Your task to perform on an android device: toggle priority inbox in the gmail app Image 0: 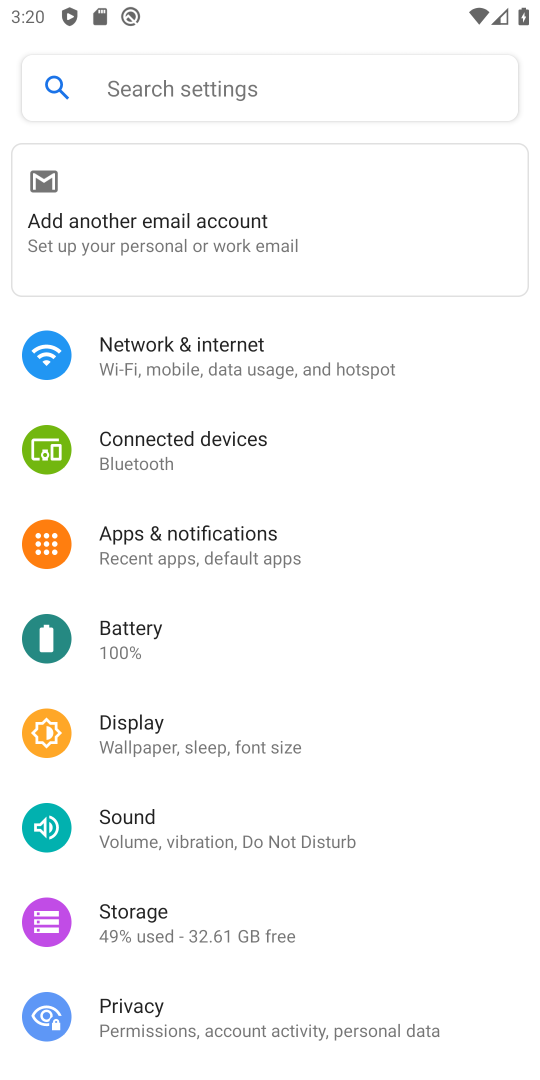
Step 0: press home button
Your task to perform on an android device: toggle priority inbox in the gmail app Image 1: 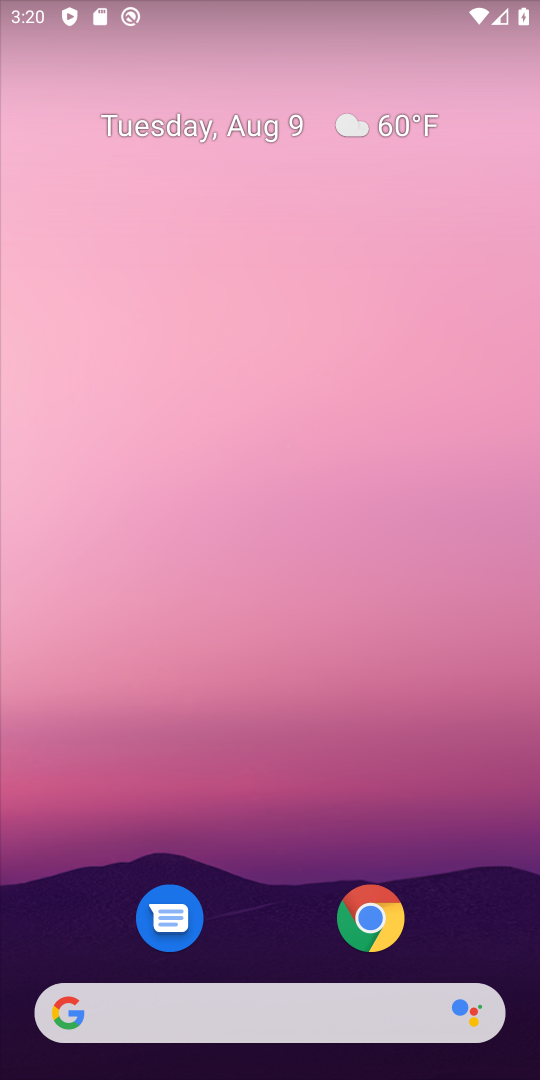
Step 1: drag from (245, 842) to (191, 173)
Your task to perform on an android device: toggle priority inbox in the gmail app Image 2: 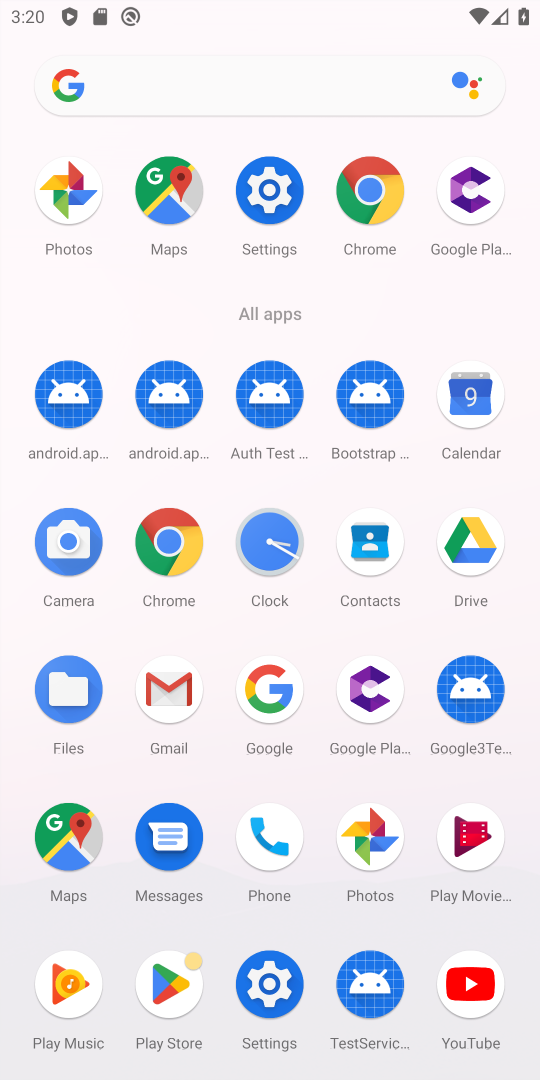
Step 2: click (173, 689)
Your task to perform on an android device: toggle priority inbox in the gmail app Image 3: 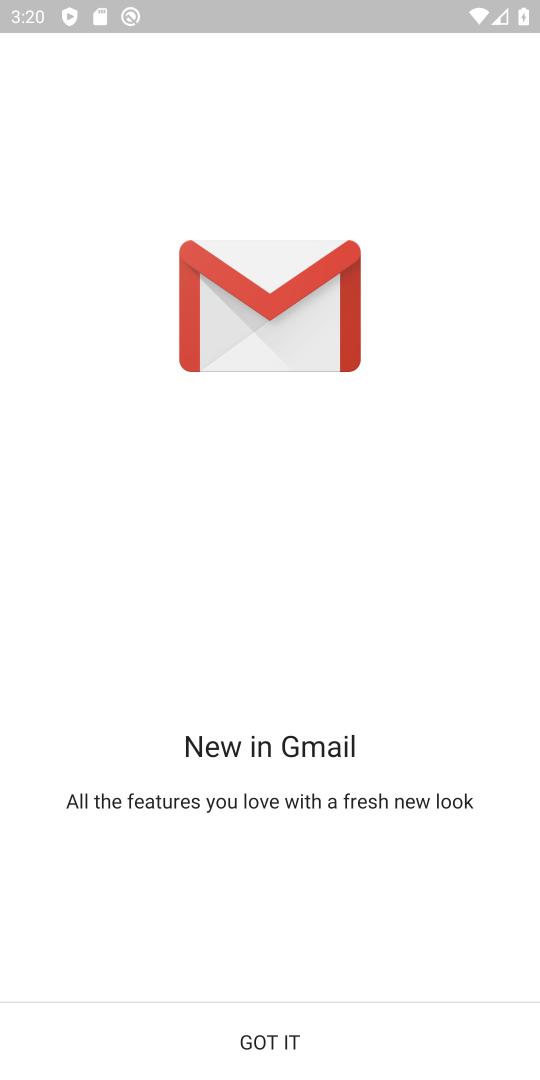
Step 3: click (296, 1034)
Your task to perform on an android device: toggle priority inbox in the gmail app Image 4: 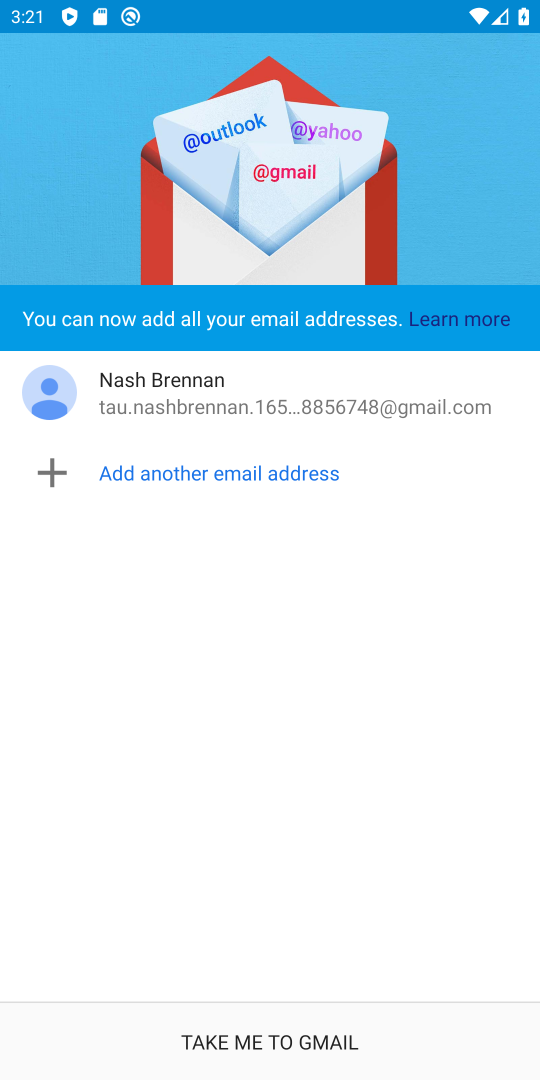
Step 4: click (296, 1034)
Your task to perform on an android device: toggle priority inbox in the gmail app Image 5: 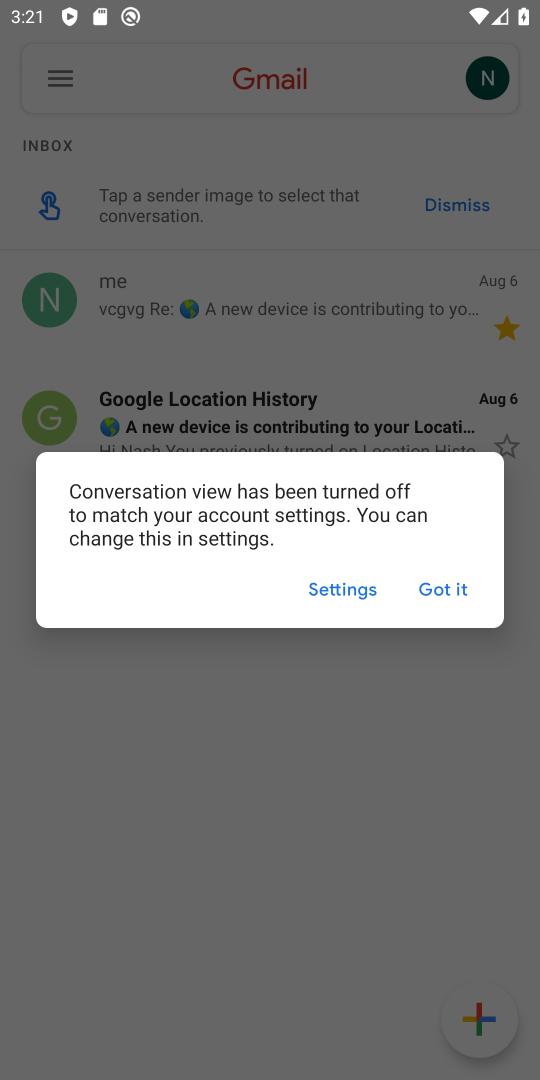
Step 5: click (462, 607)
Your task to perform on an android device: toggle priority inbox in the gmail app Image 6: 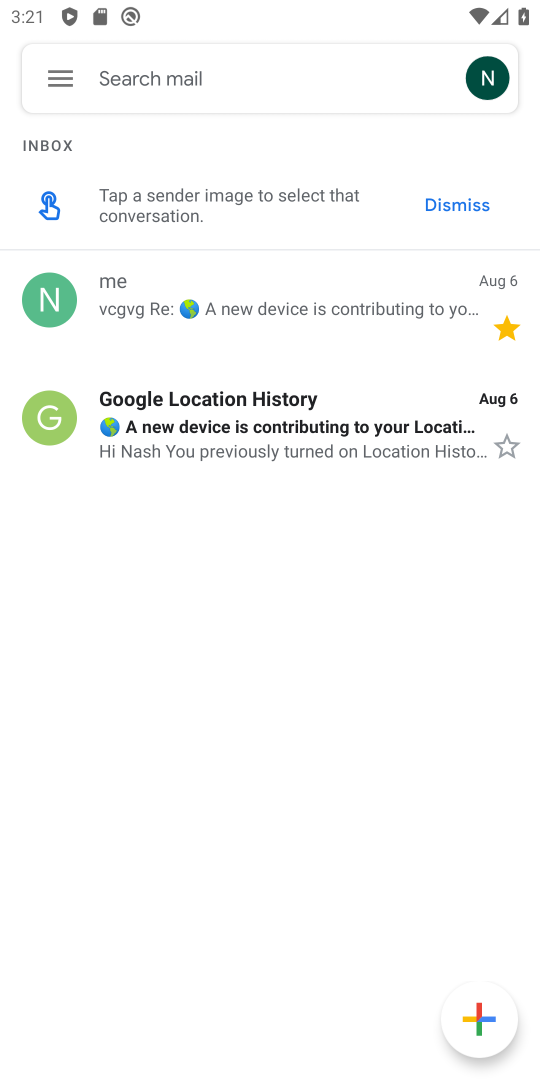
Step 6: click (61, 78)
Your task to perform on an android device: toggle priority inbox in the gmail app Image 7: 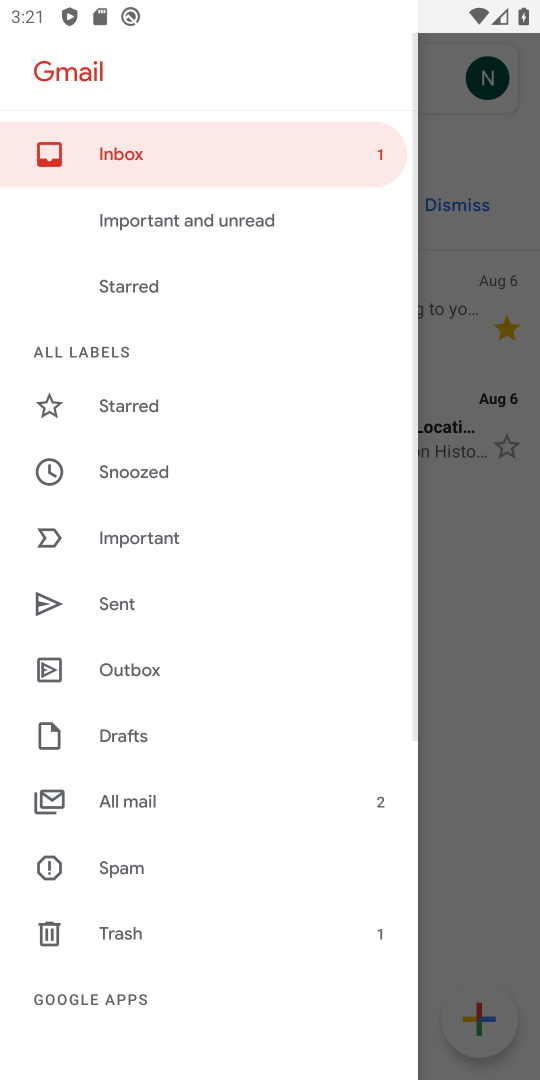
Step 7: drag from (199, 918) to (163, 191)
Your task to perform on an android device: toggle priority inbox in the gmail app Image 8: 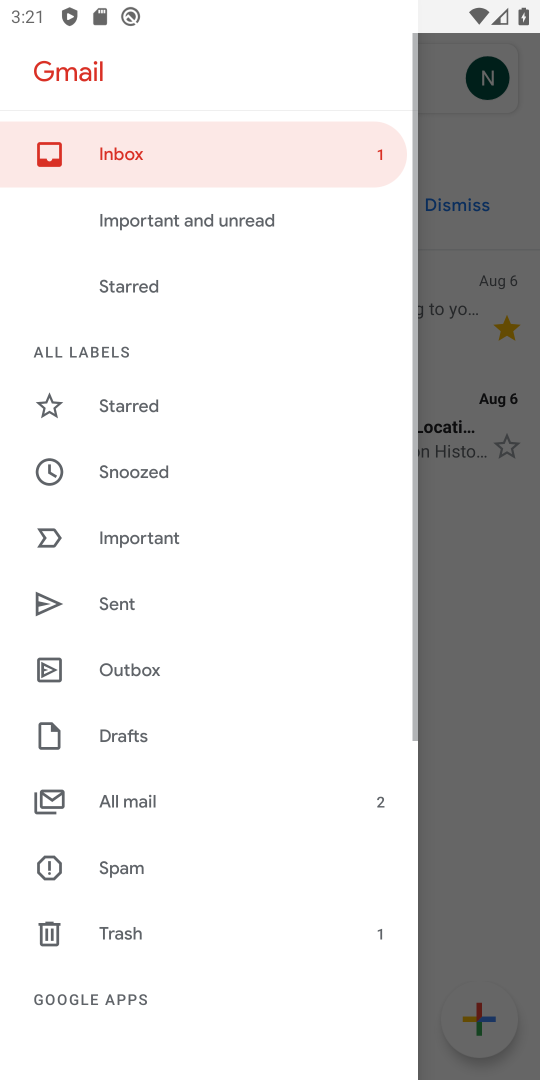
Step 8: drag from (184, 903) to (144, 149)
Your task to perform on an android device: toggle priority inbox in the gmail app Image 9: 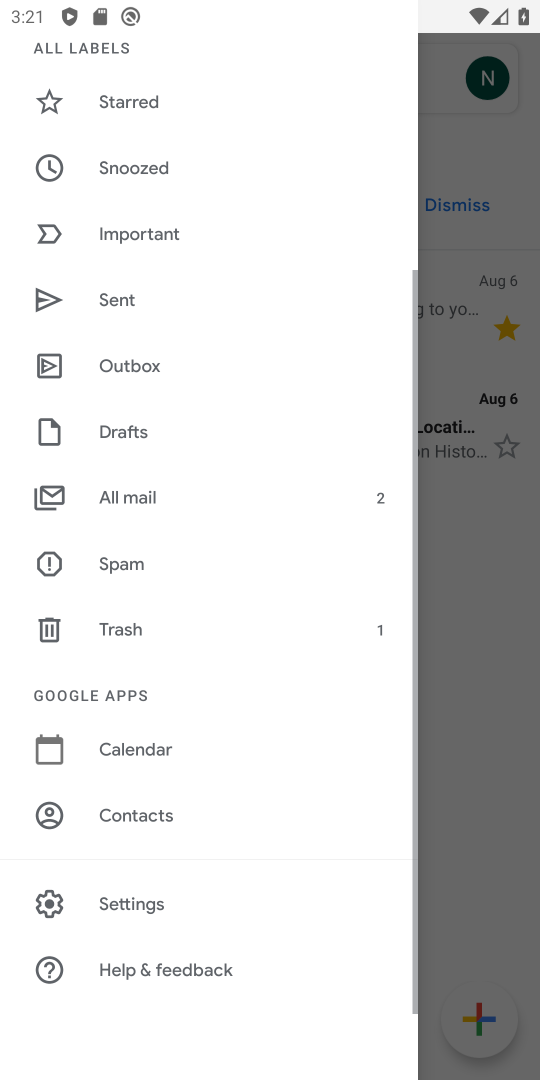
Step 9: click (90, 901)
Your task to perform on an android device: toggle priority inbox in the gmail app Image 10: 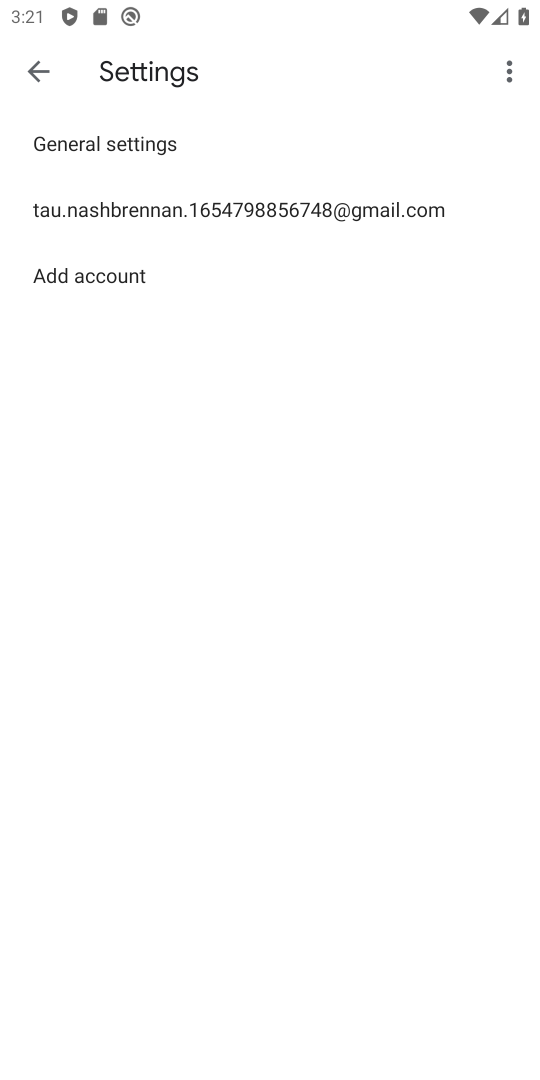
Step 10: click (153, 221)
Your task to perform on an android device: toggle priority inbox in the gmail app Image 11: 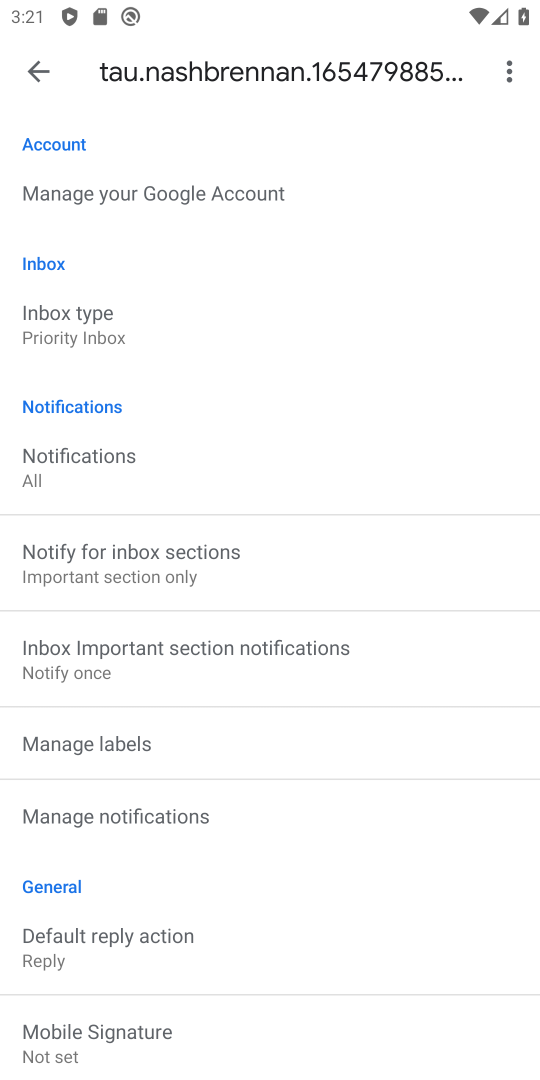
Step 11: click (131, 322)
Your task to perform on an android device: toggle priority inbox in the gmail app Image 12: 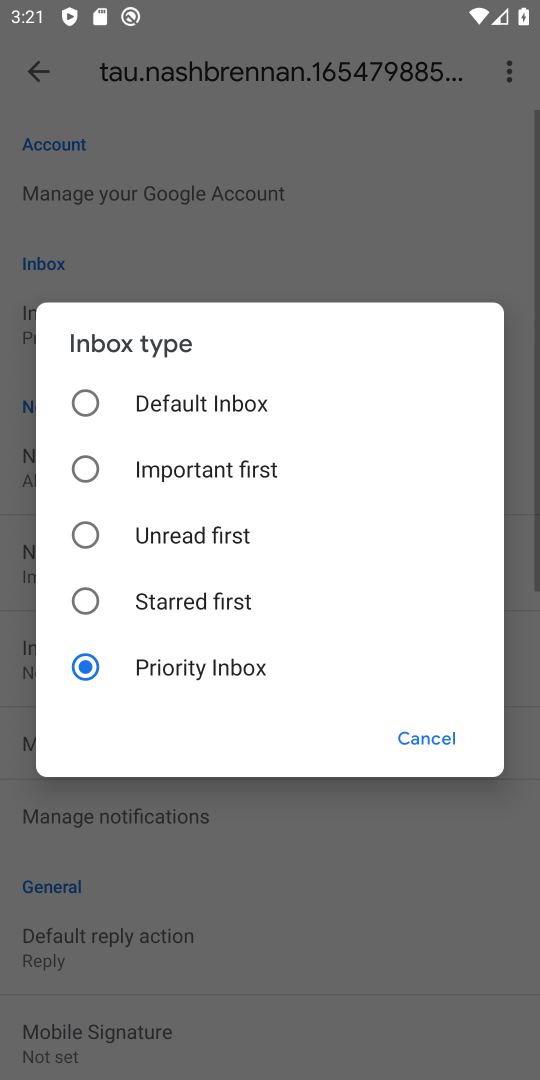
Step 12: click (122, 385)
Your task to perform on an android device: toggle priority inbox in the gmail app Image 13: 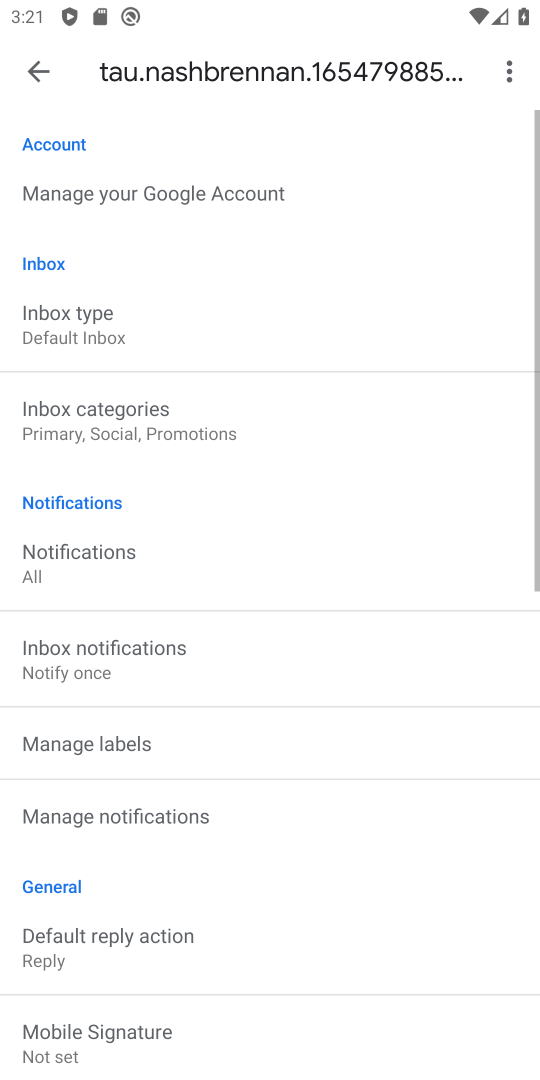
Step 13: task complete